Your task to perform on an android device: open a new tab in the chrome app Image 0: 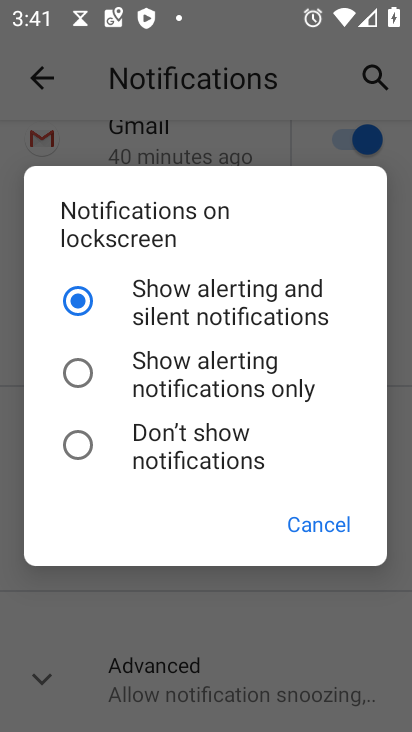
Step 0: click (330, 529)
Your task to perform on an android device: open a new tab in the chrome app Image 1: 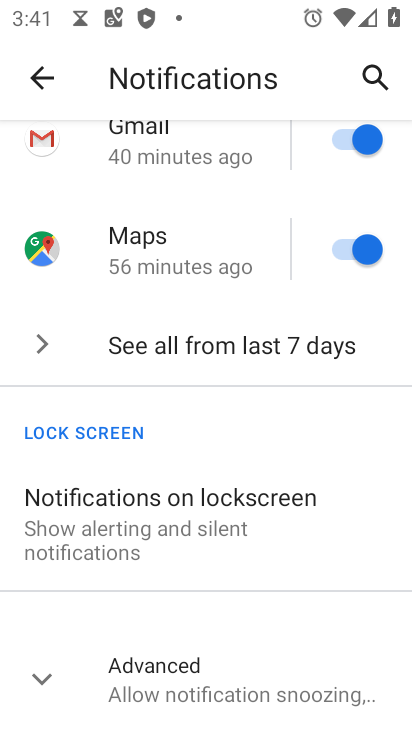
Step 1: press back button
Your task to perform on an android device: open a new tab in the chrome app Image 2: 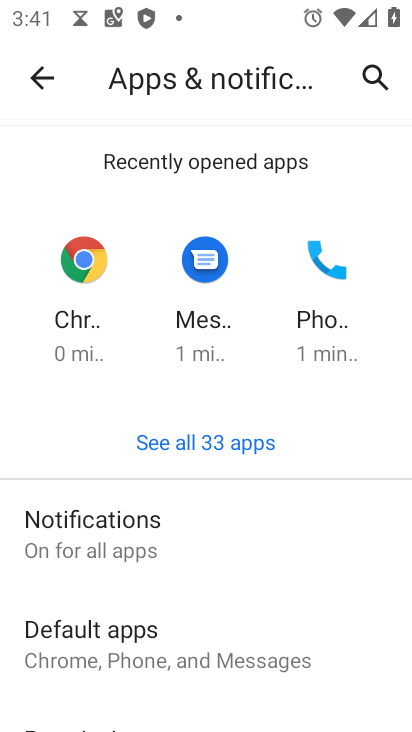
Step 2: press back button
Your task to perform on an android device: open a new tab in the chrome app Image 3: 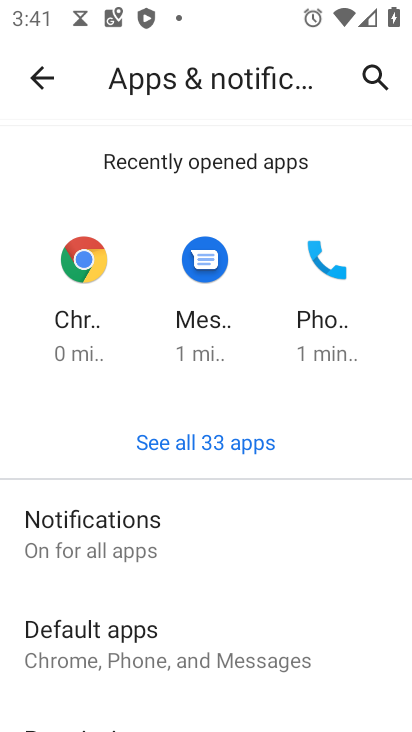
Step 3: press back button
Your task to perform on an android device: open a new tab in the chrome app Image 4: 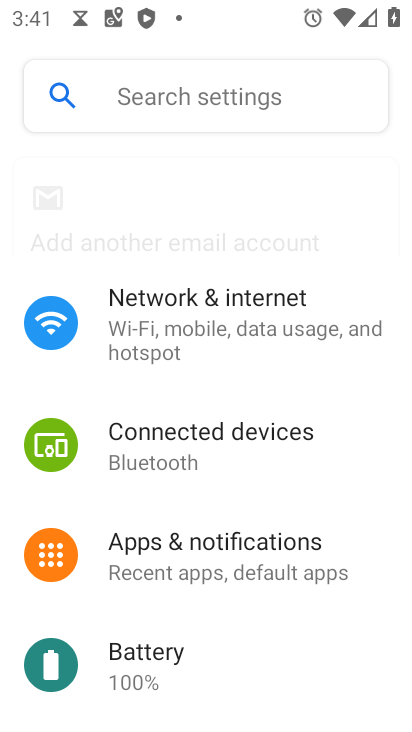
Step 4: press back button
Your task to perform on an android device: open a new tab in the chrome app Image 5: 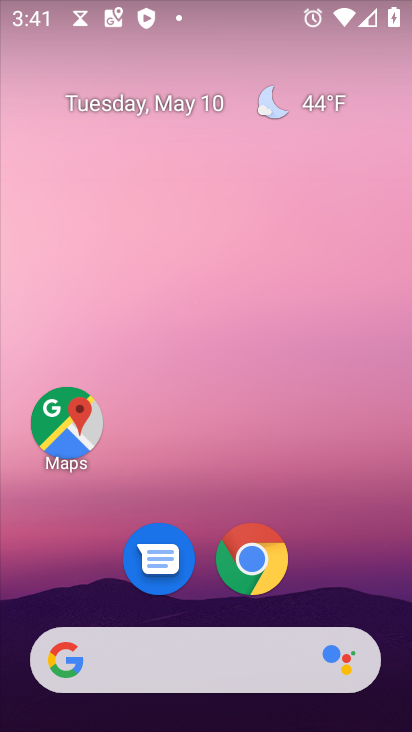
Step 5: drag from (332, 541) to (114, 7)
Your task to perform on an android device: open a new tab in the chrome app Image 6: 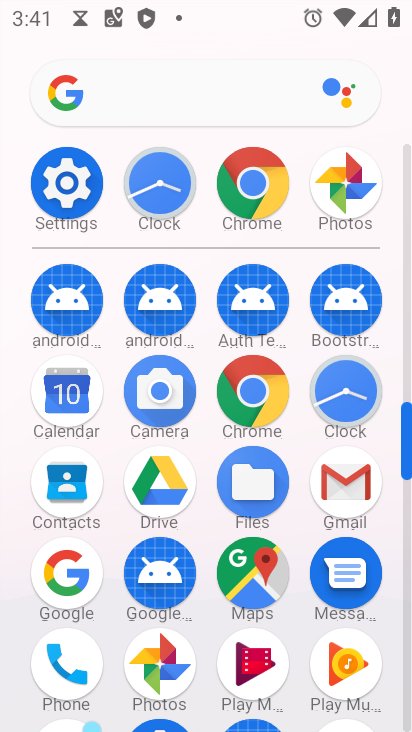
Step 6: click (263, 208)
Your task to perform on an android device: open a new tab in the chrome app Image 7: 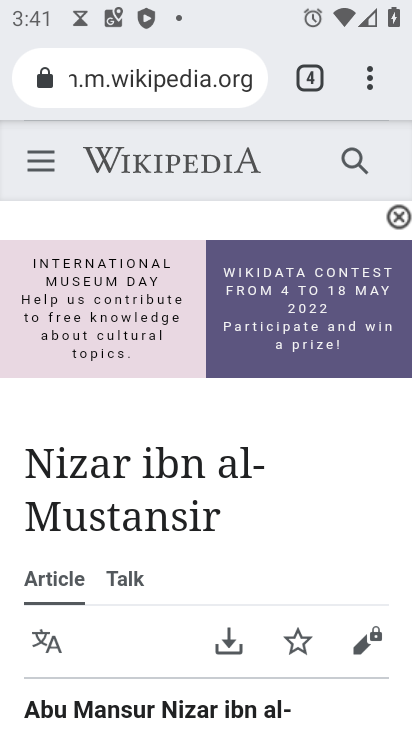
Step 7: click (362, 72)
Your task to perform on an android device: open a new tab in the chrome app Image 8: 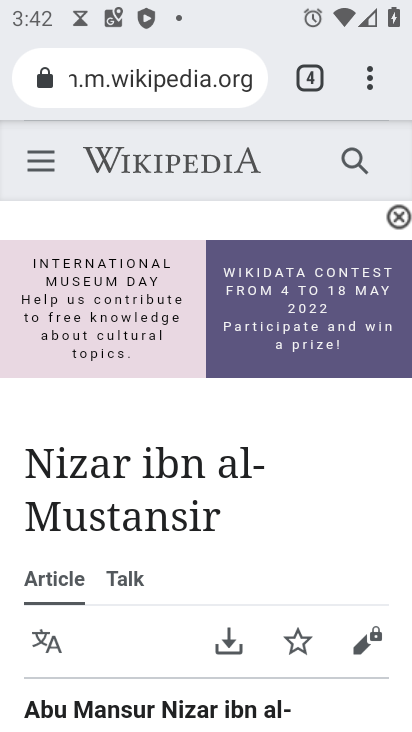
Step 8: drag from (363, 78) to (72, 154)
Your task to perform on an android device: open a new tab in the chrome app Image 9: 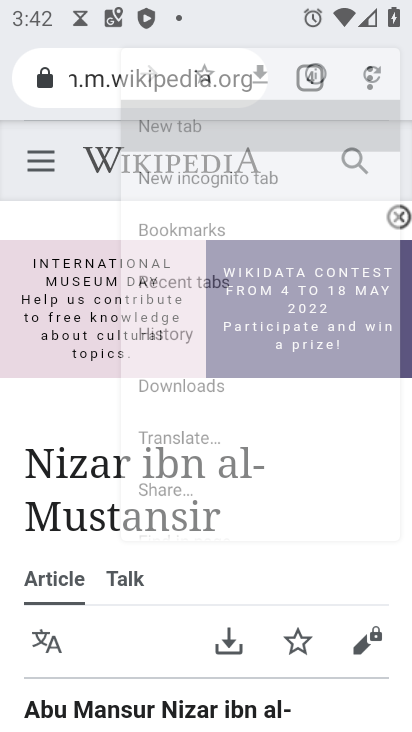
Step 9: click (72, 149)
Your task to perform on an android device: open a new tab in the chrome app Image 10: 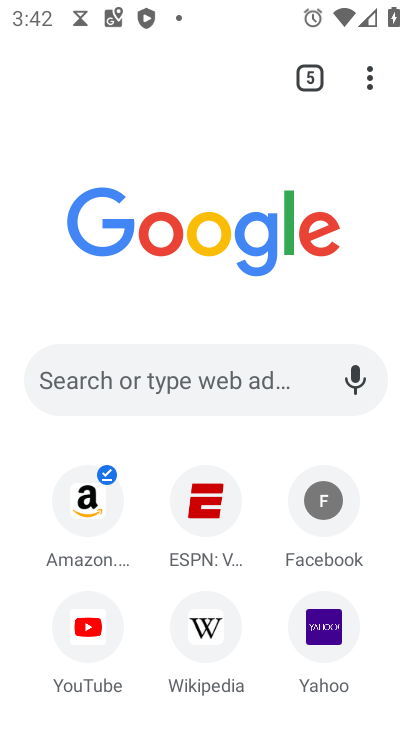
Step 10: task complete